Your task to perform on an android device: When is my next meeting? Image 0: 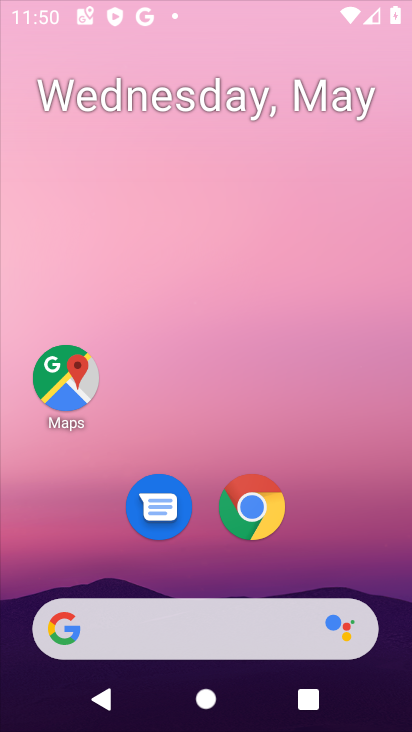
Step 0: press home button
Your task to perform on an android device: When is my next meeting? Image 1: 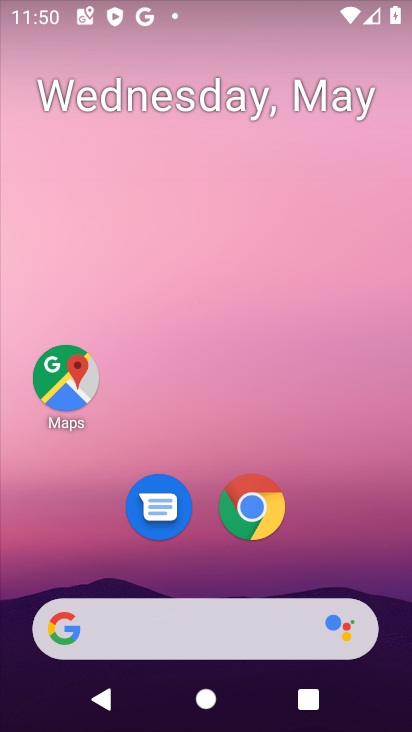
Step 1: drag from (352, 540) to (354, 97)
Your task to perform on an android device: When is my next meeting? Image 2: 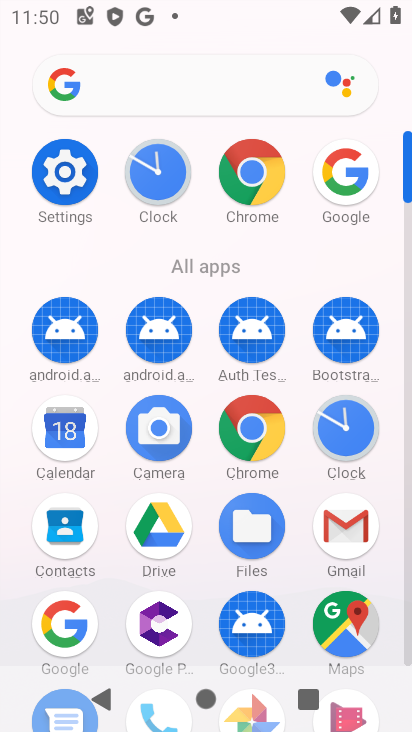
Step 2: click (43, 426)
Your task to perform on an android device: When is my next meeting? Image 3: 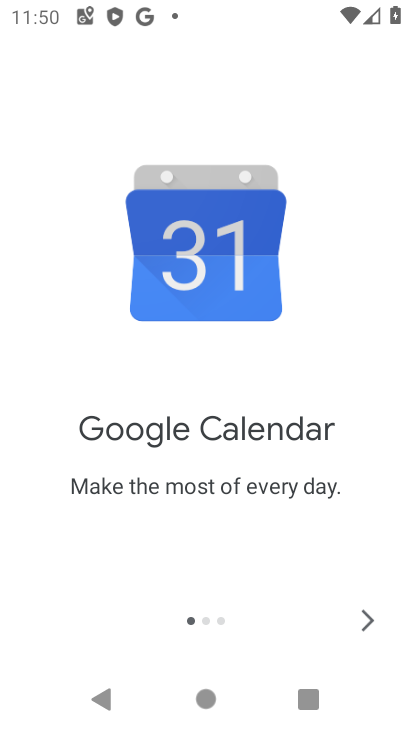
Step 3: click (354, 623)
Your task to perform on an android device: When is my next meeting? Image 4: 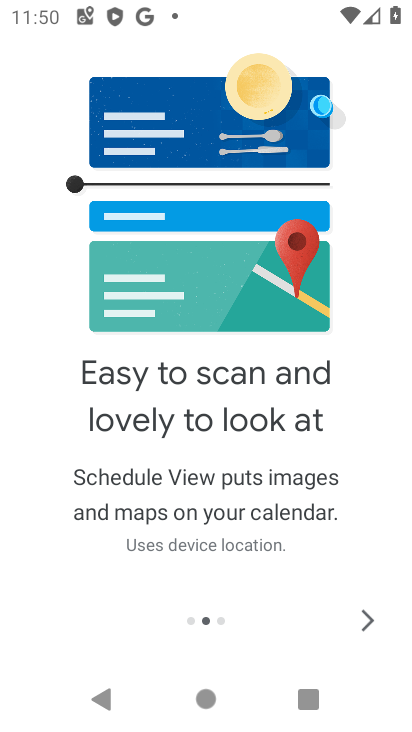
Step 4: click (354, 623)
Your task to perform on an android device: When is my next meeting? Image 5: 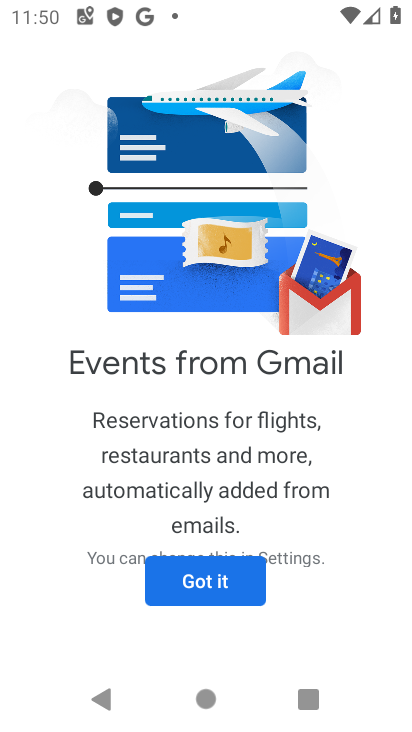
Step 5: click (166, 579)
Your task to perform on an android device: When is my next meeting? Image 6: 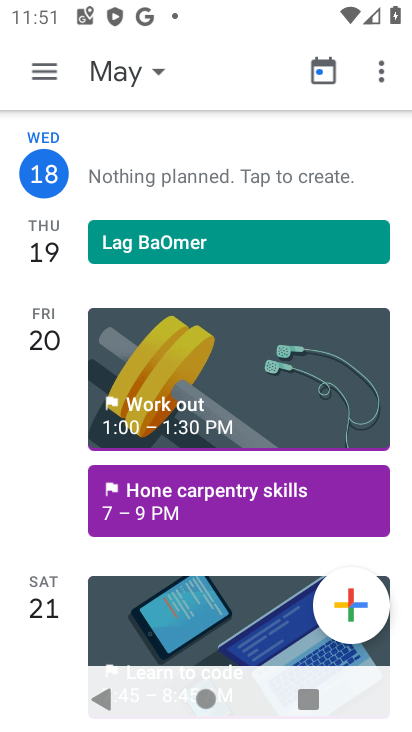
Step 6: task complete